Your task to perform on an android device: turn on the 24-hour format for clock Image 0: 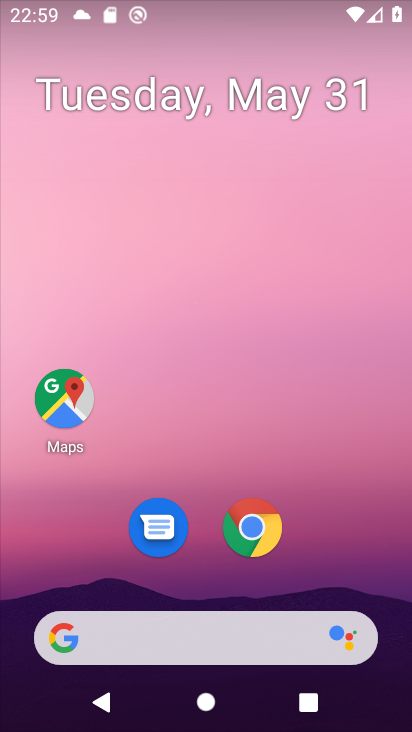
Step 0: drag from (358, 567) to (211, 0)
Your task to perform on an android device: turn on the 24-hour format for clock Image 1: 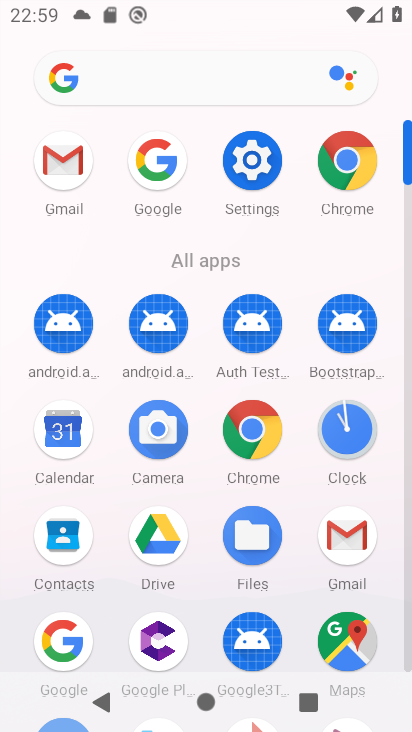
Step 1: click (353, 427)
Your task to perform on an android device: turn on the 24-hour format for clock Image 2: 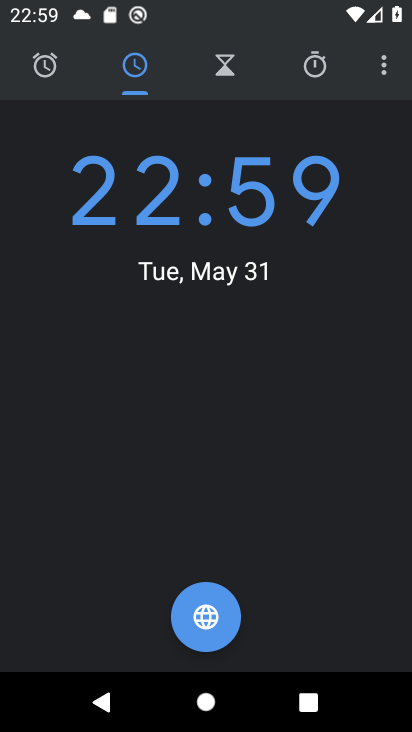
Step 2: click (383, 72)
Your task to perform on an android device: turn on the 24-hour format for clock Image 3: 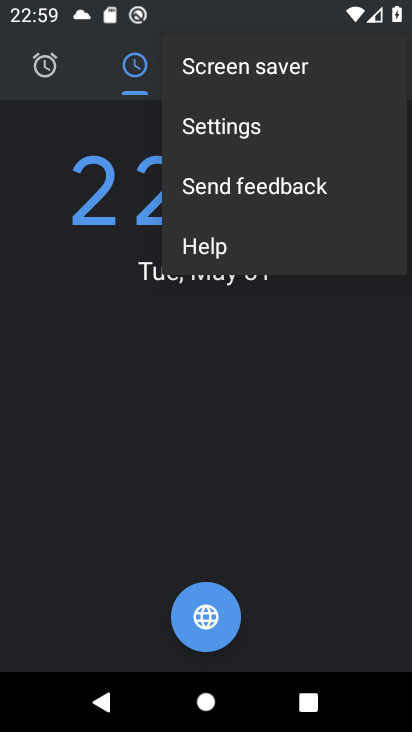
Step 3: click (264, 130)
Your task to perform on an android device: turn on the 24-hour format for clock Image 4: 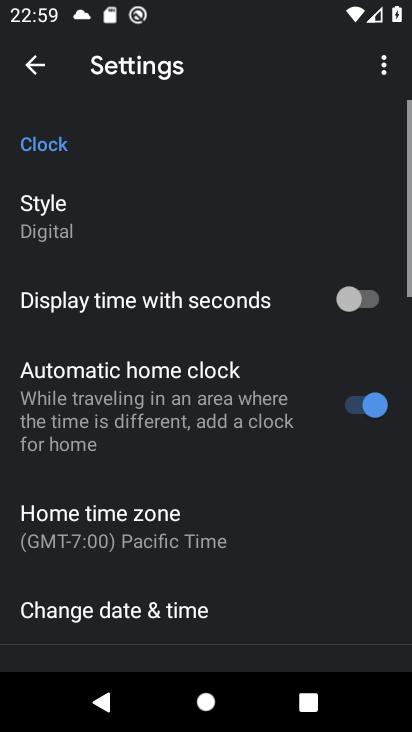
Step 4: drag from (236, 577) to (235, 235)
Your task to perform on an android device: turn on the 24-hour format for clock Image 5: 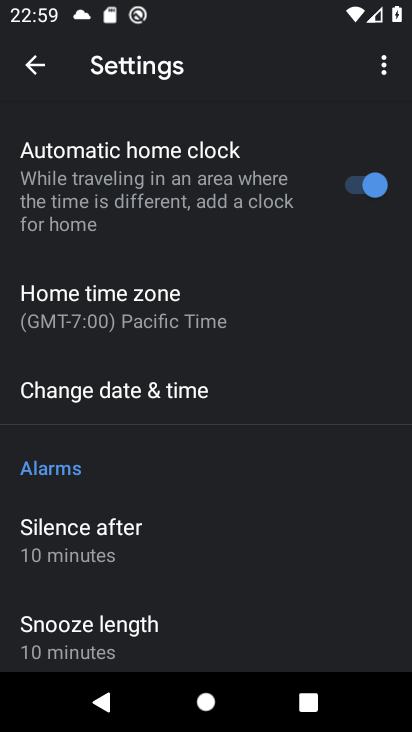
Step 5: click (218, 380)
Your task to perform on an android device: turn on the 24-hour format for clock Image 6: 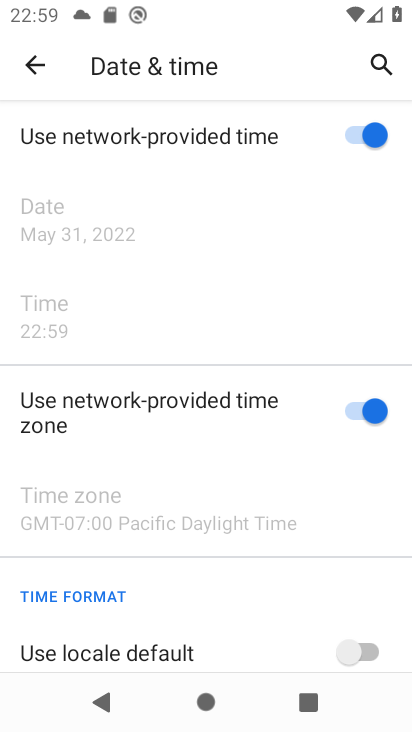
Step 6: task complete